Your task to perform on an android device: Play the last video I watched on Youtube Image 0: 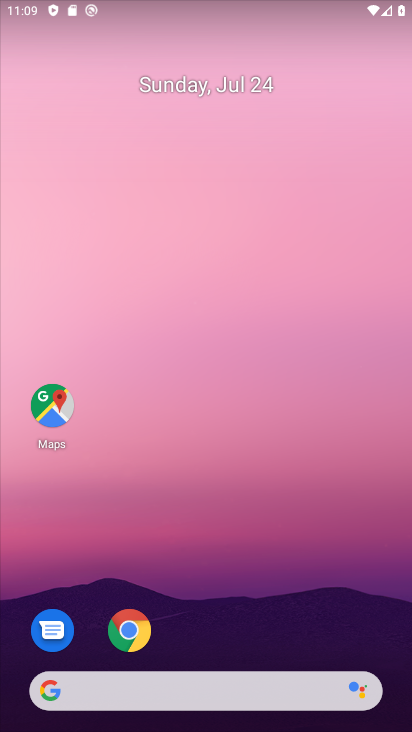
Step 0: drag from (293, 631) to (305, 37)
Your task to perform on an android device: Play the last video I watched on Youtube Image 1: 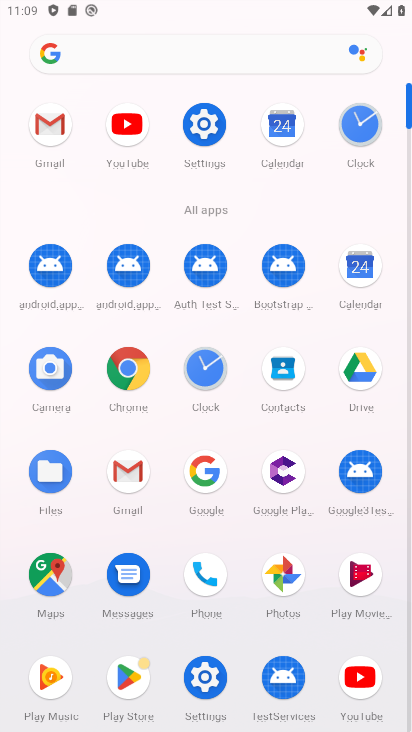
Step 1: click (360, 673)
Your task to perform on an android device: Play the last video I watched on Youtube Image 2: 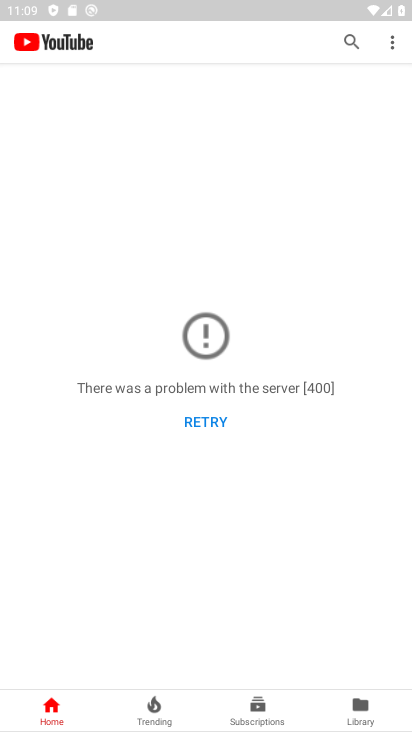
Step 2: click (205, 419)
Your task to perform on an android device: Play the last video I watched on Youtube Image 3: 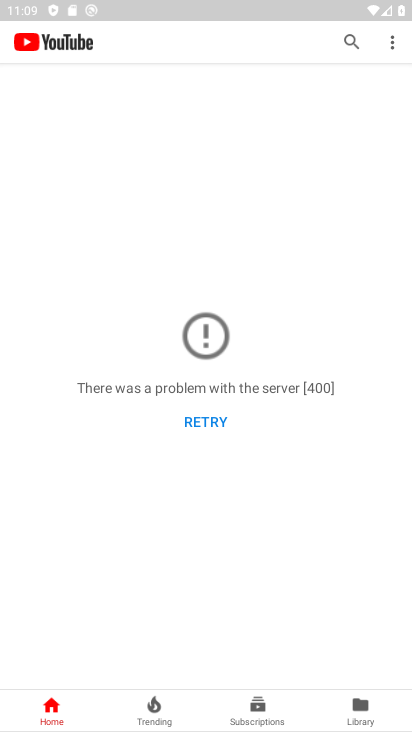
Step 3: click (205, 419)
Your task to perform on an android device: Play the last video I watched on Youtube Image 4: 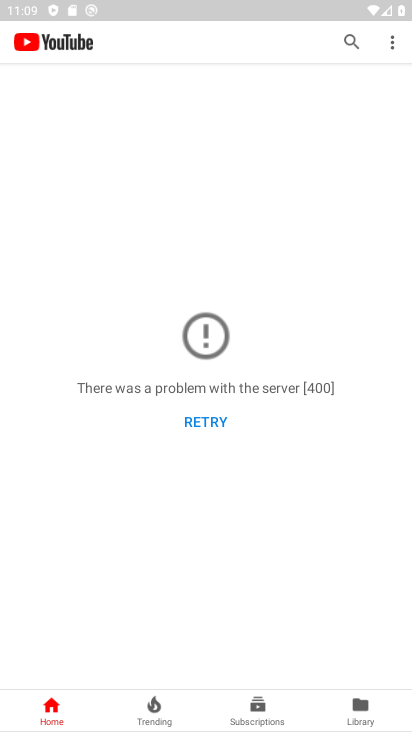
Step 4: task complete